Your task to perform on an android device: Open maps Image 0: 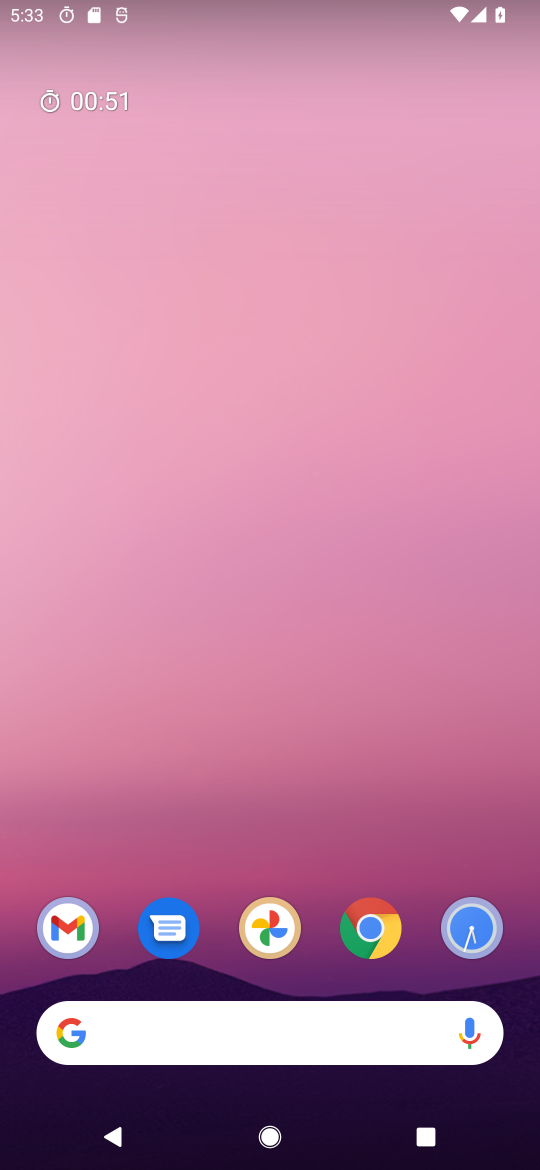
Step 0: drag from (260, 518) to (217, 717)
Your task to perform on an android device: Open maps Image 1: 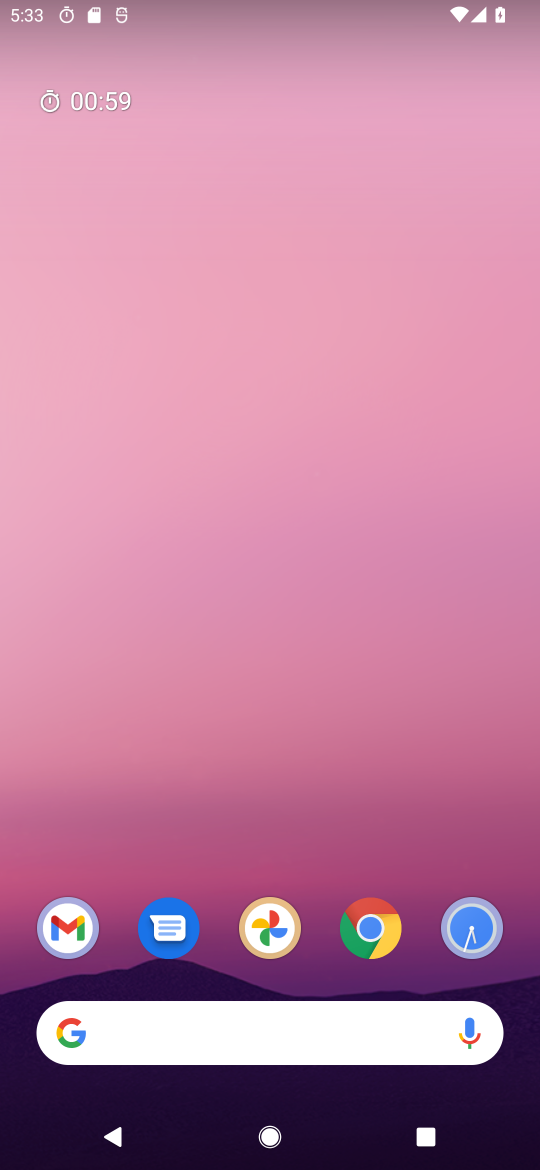
Step 1: drag from (288, 927) to (244, 9)
Your task to perform on an android device: Open maps Image 2: 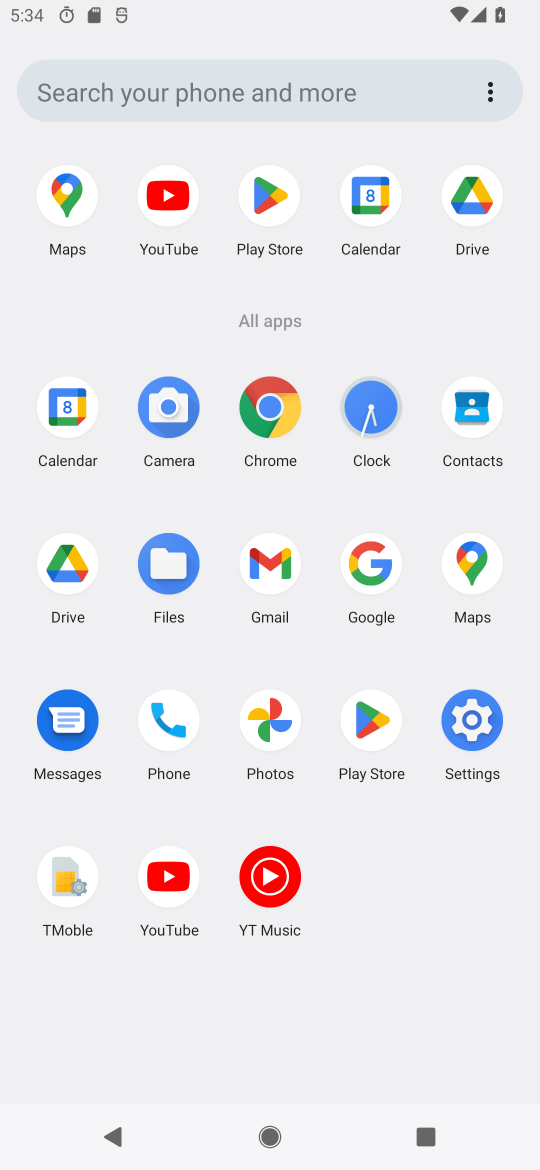
Step 2: click (486, 586)
Your task to perform on an android device: Open maps Image 3: 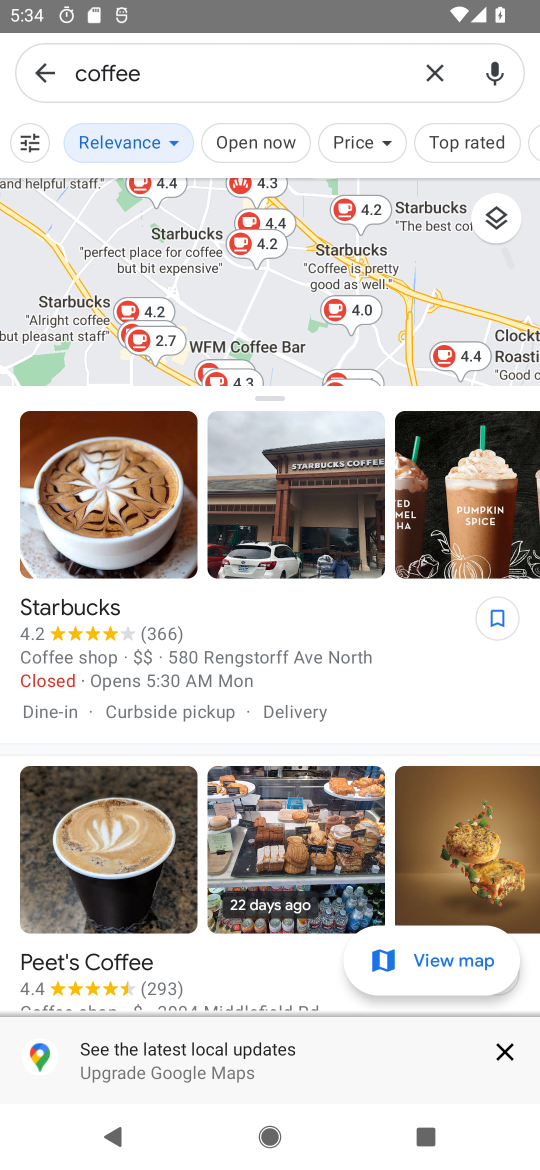
Step 3: click (34, 68)
Your task to perform on an android device: Open maps Image 4: 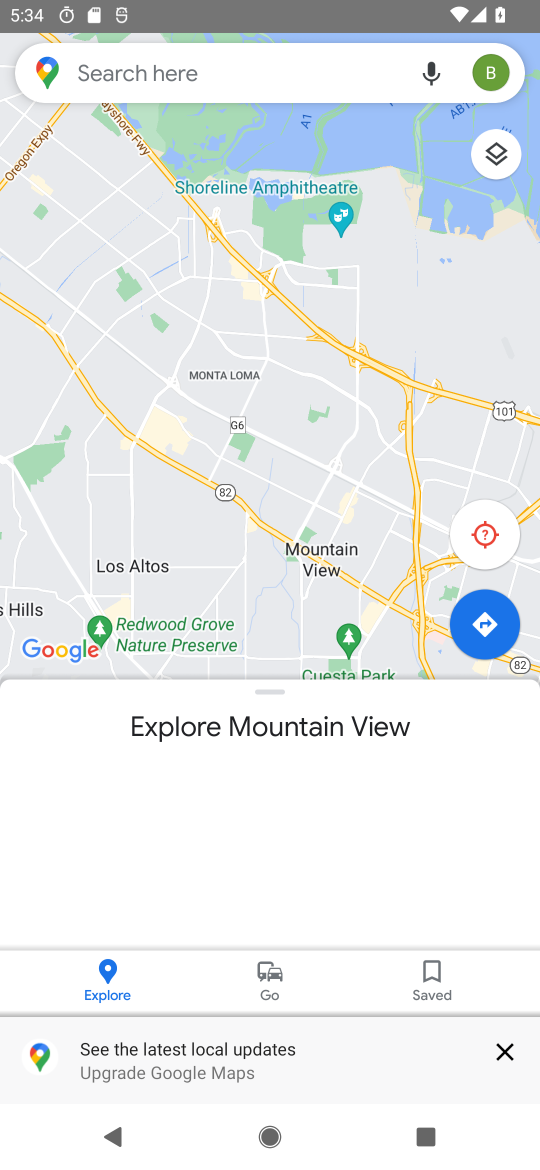
Step 4: task complete